Your task to perform on an android device: open app "HBO Max: Stream TV & Movies" Image 0: 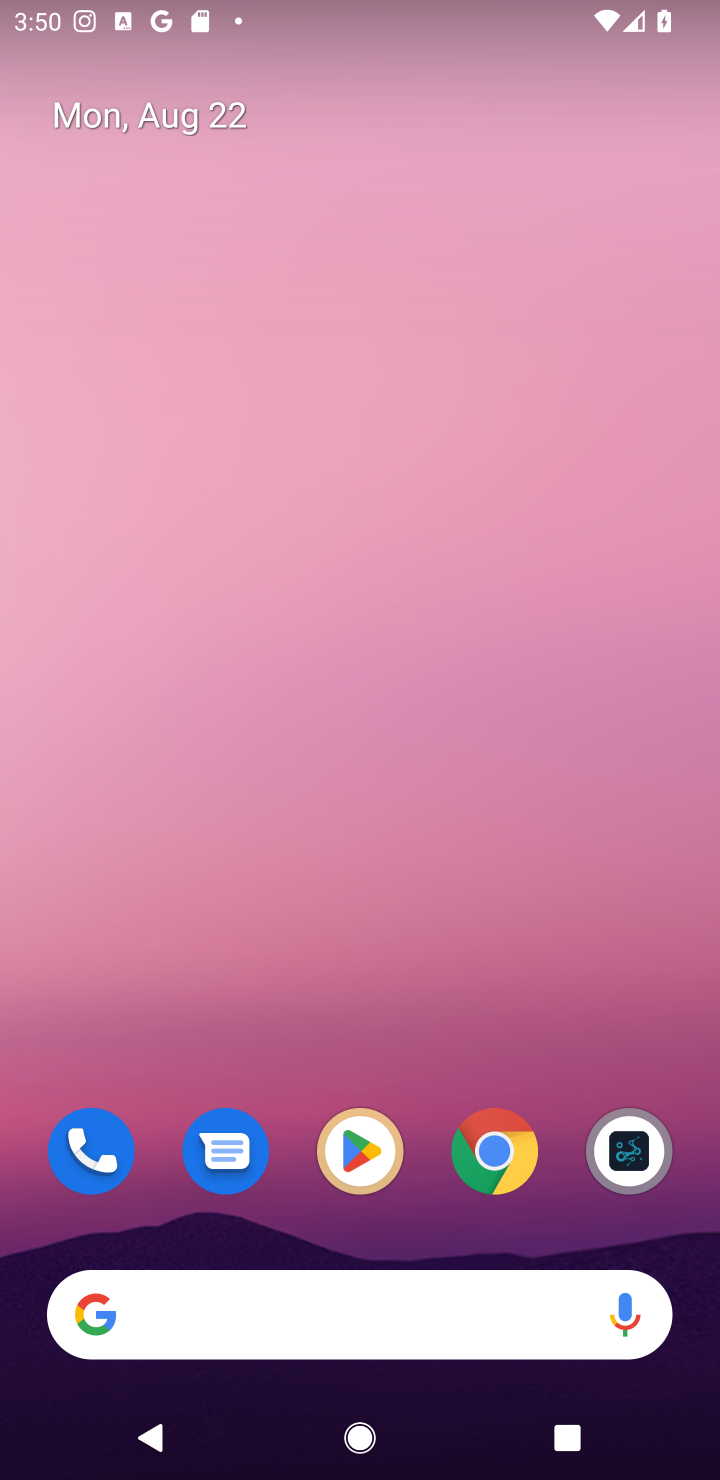
Step 0: press home button
Your task to perform on an android device: open app "HBO Max: Stream TV & Movies" Image 1: 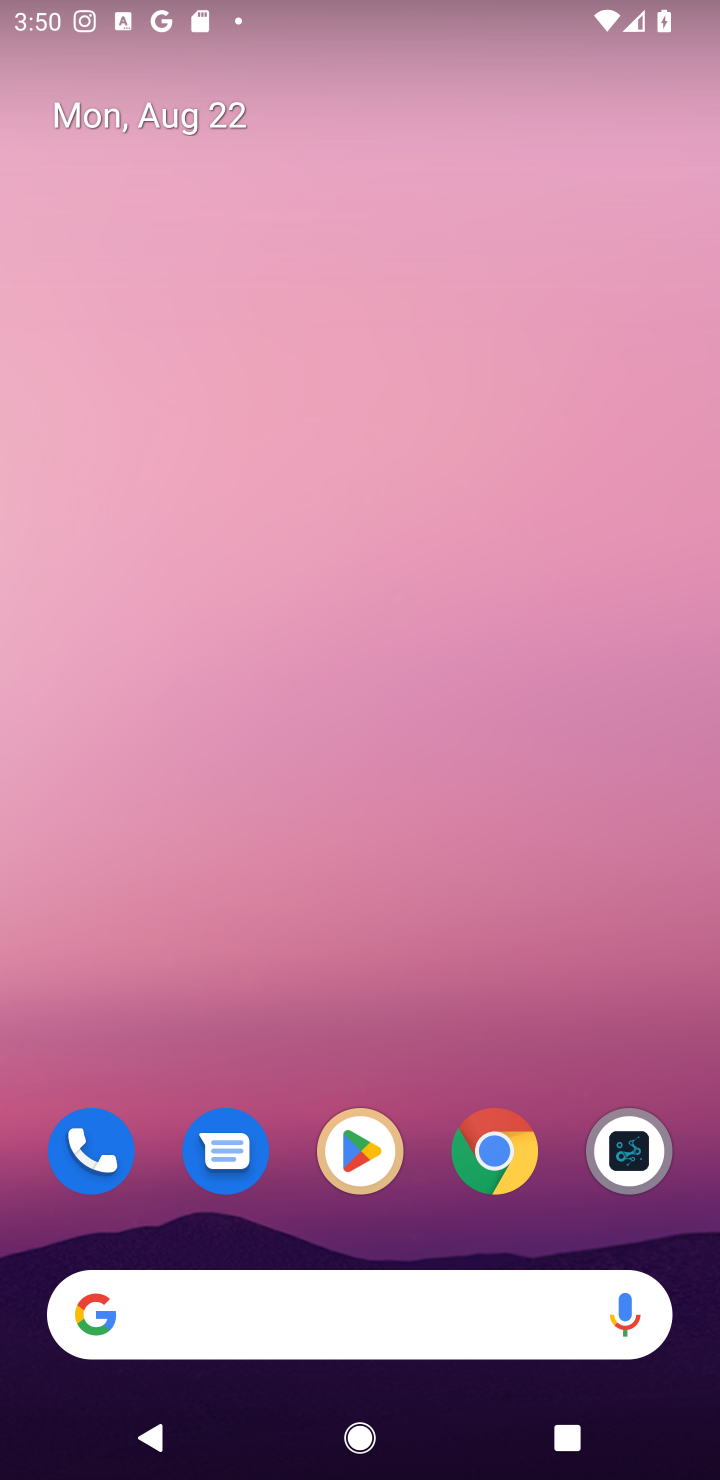
Step 1: click (369, 1157)
Your task to perform on an android device: open app "HBO Max: Stream TV & Movies" Image 2: 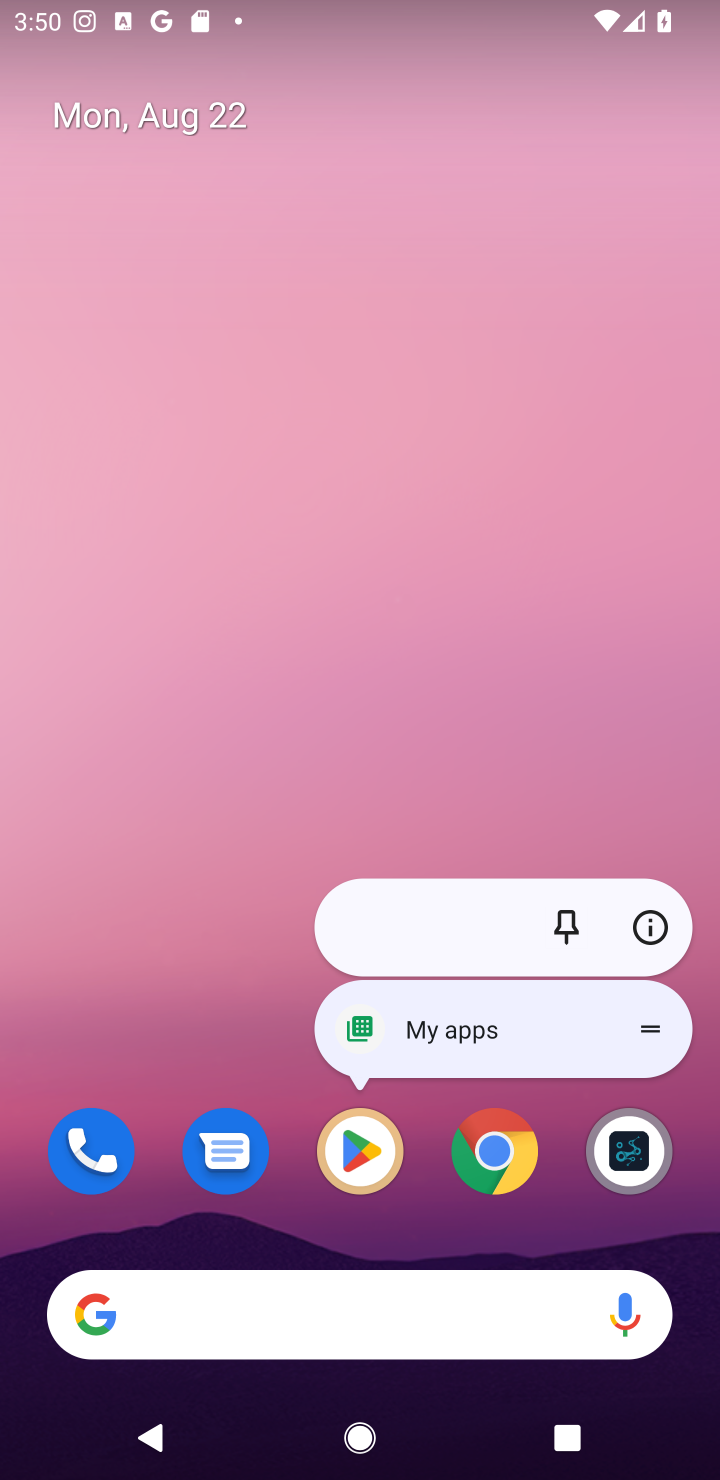
Step 2: click (349, 1145)
Your task to perform on an android device: open app "HBO Max: Stream TV & Movies" Image 3: 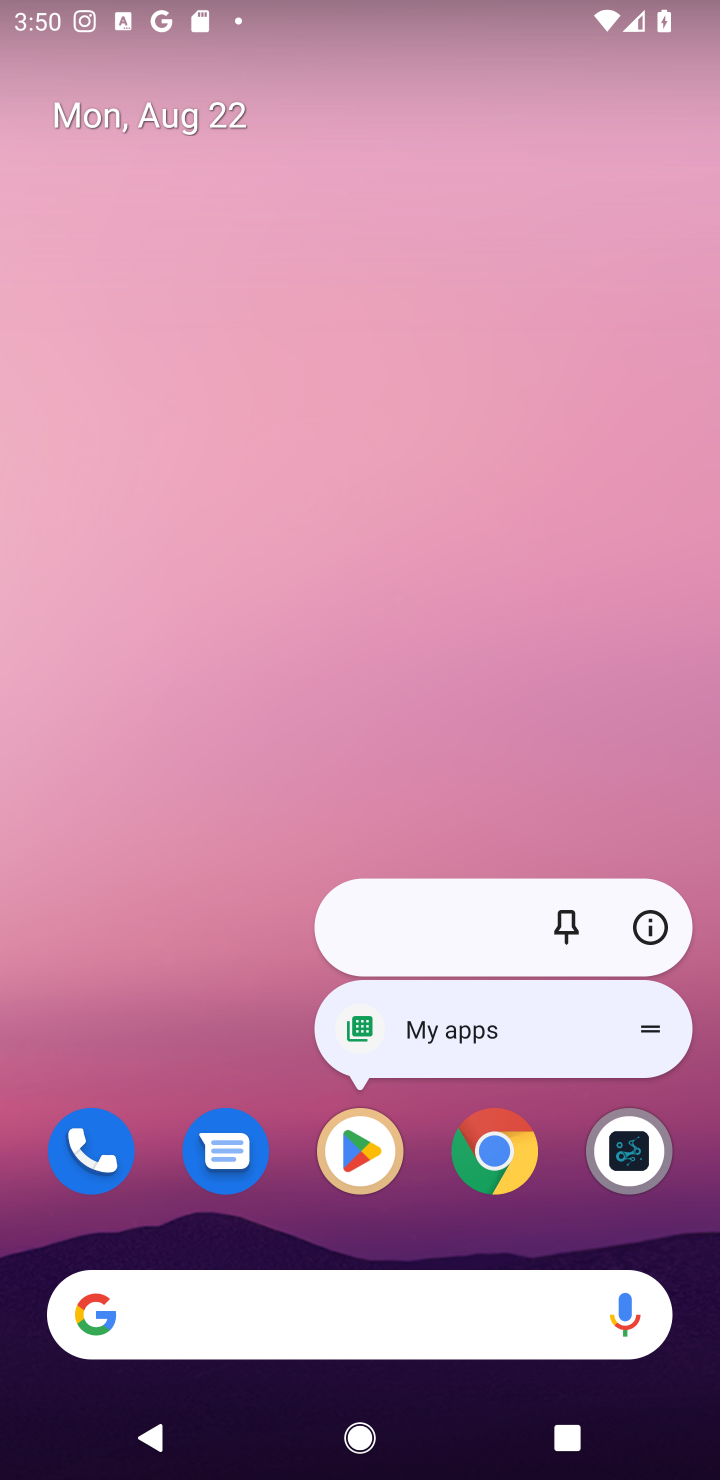
Step 3: click (349, 1145)
Your task to perform on an android device: open app "HBO Max: Stream TV & Movies" Image 4: 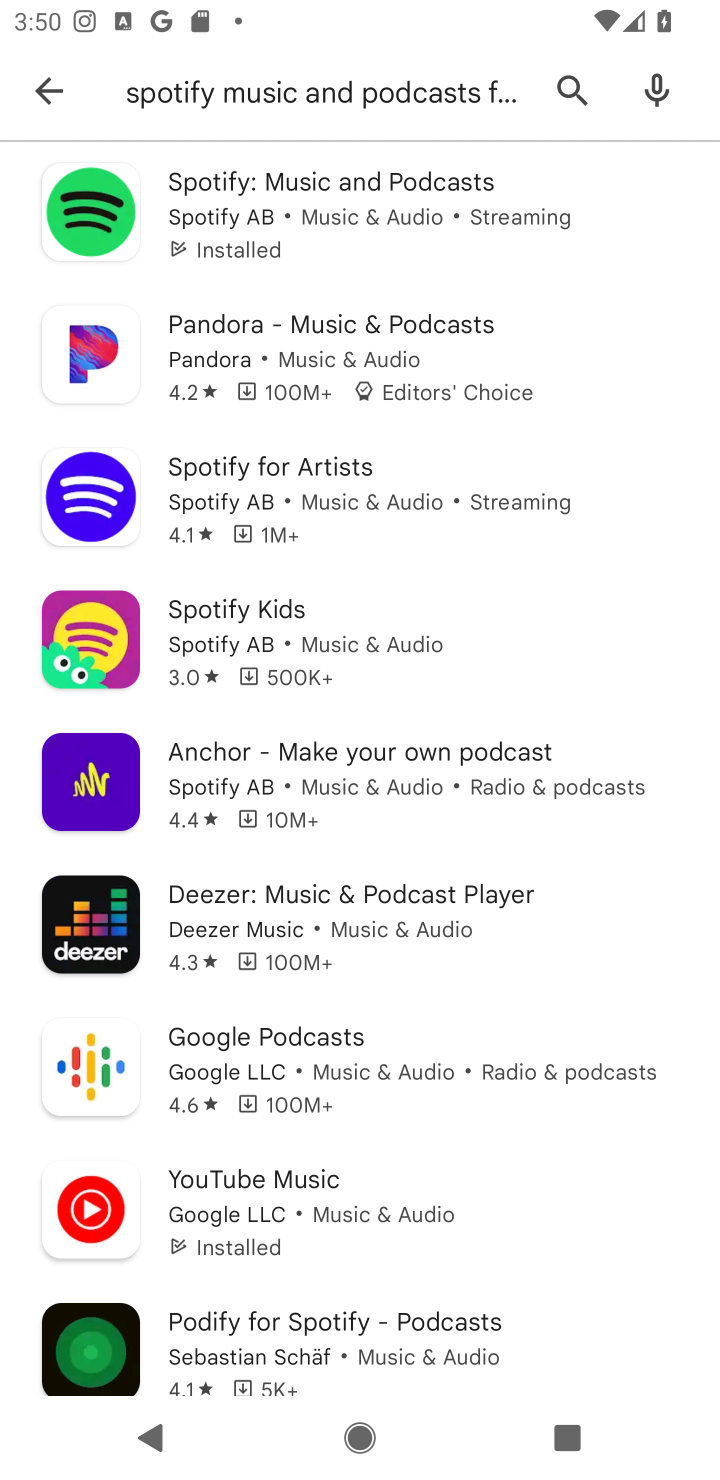
Step 4: click (567, 74)
Your task to perform on an android device: open app "HBO Max: Stream TV & Movies" Image 5: 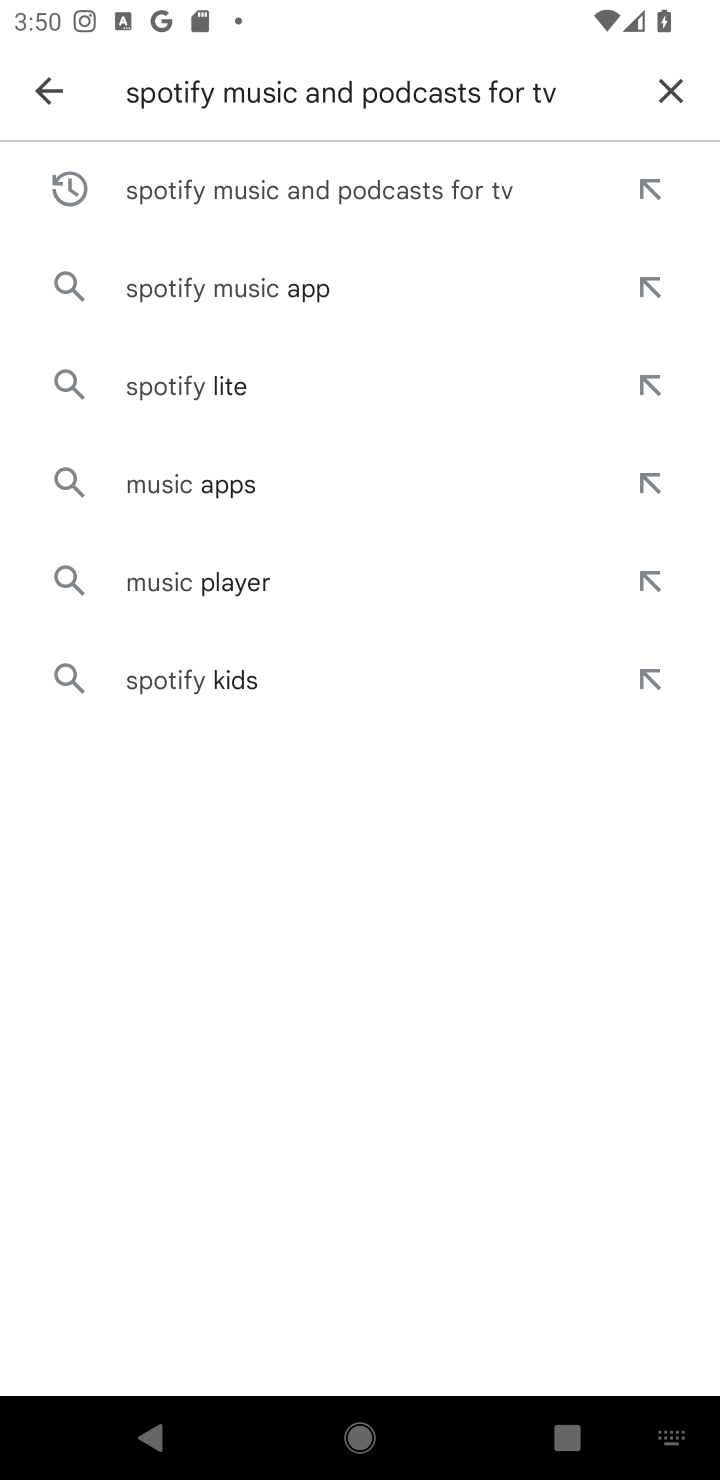
Step 5: click (672, 76)
Your task to perform on an android device: open app "HBO Max: Stream TV & Movies" Image 6: 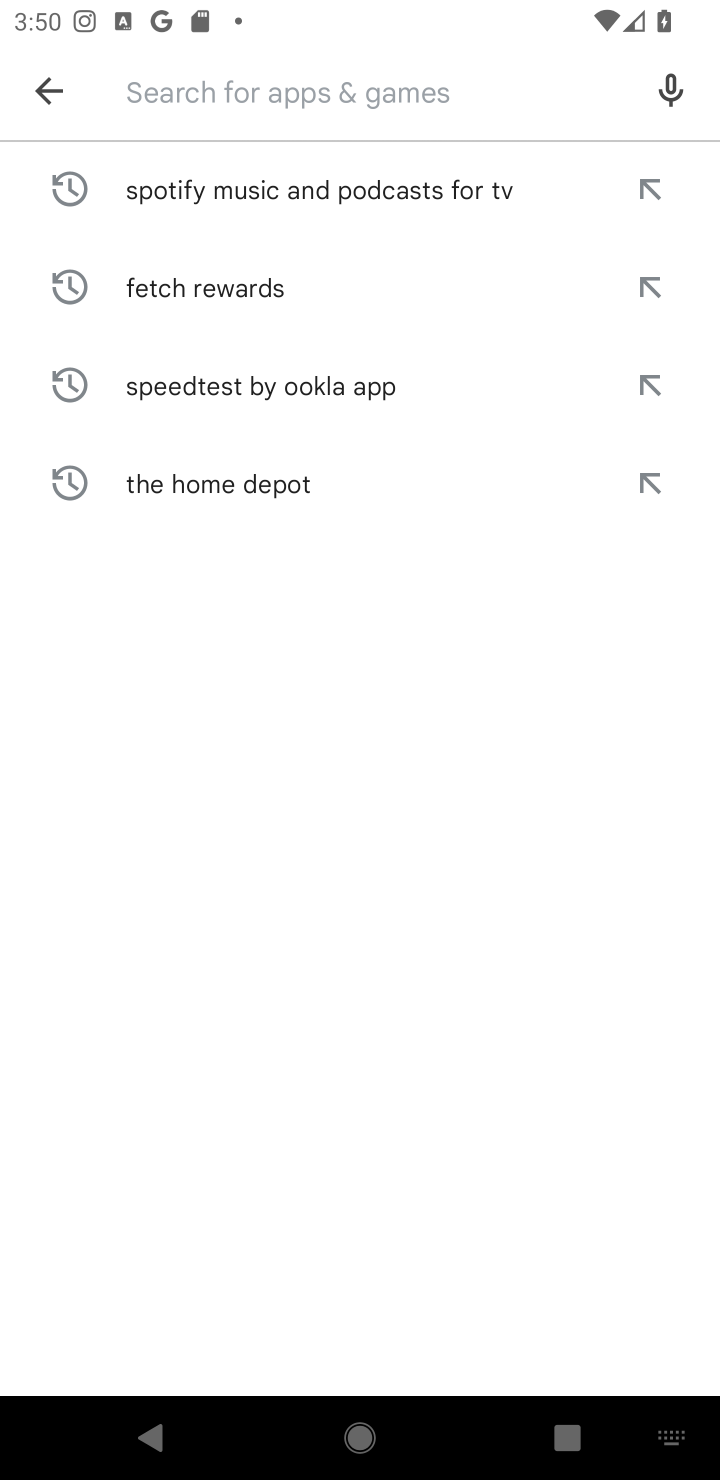
Step 6: type "HBO Max: Stream TV & Movies"
Your task to perform on an android device: open app "HBO Max: Stream TV & Movies" Image 7: 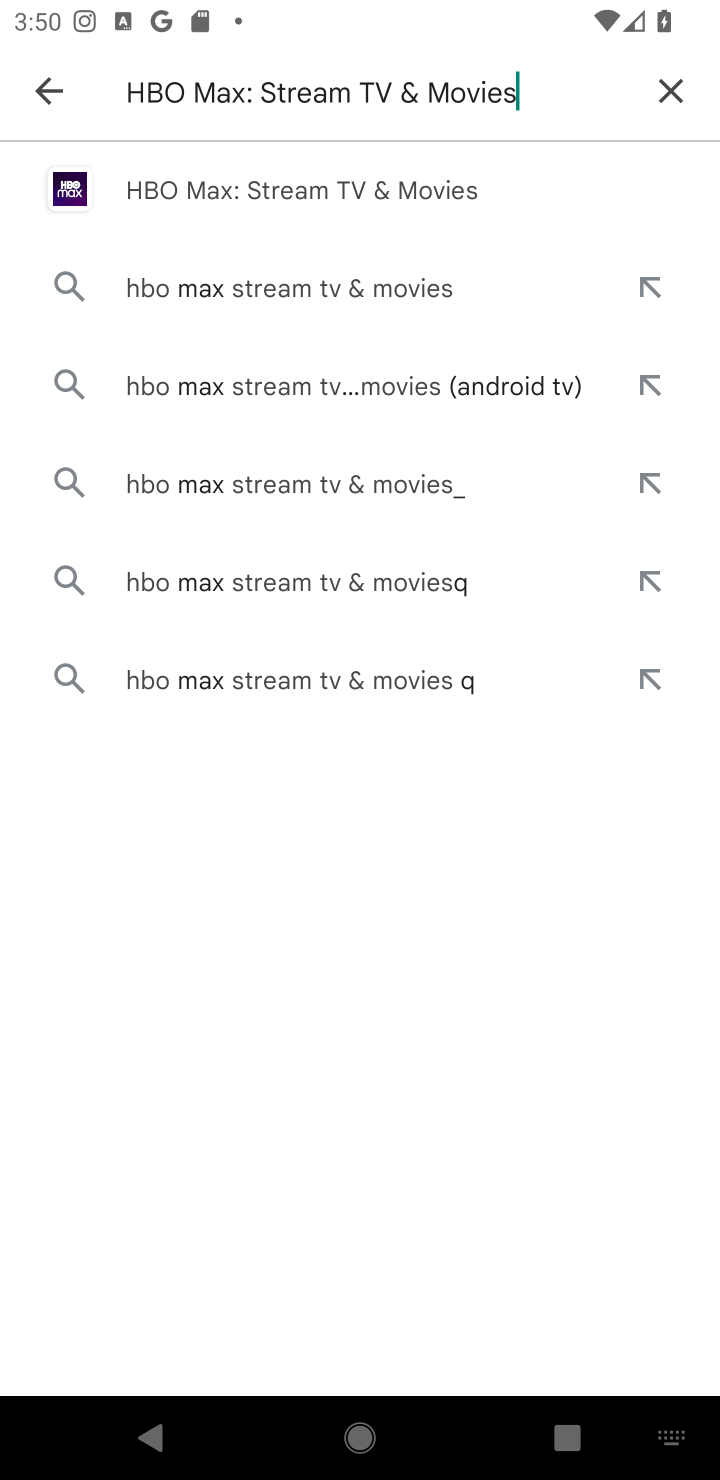
Step 7: click (273, 189)
Your task to perform on an android device: open app "HBO Max: Stream TV & Movies" Image 8: 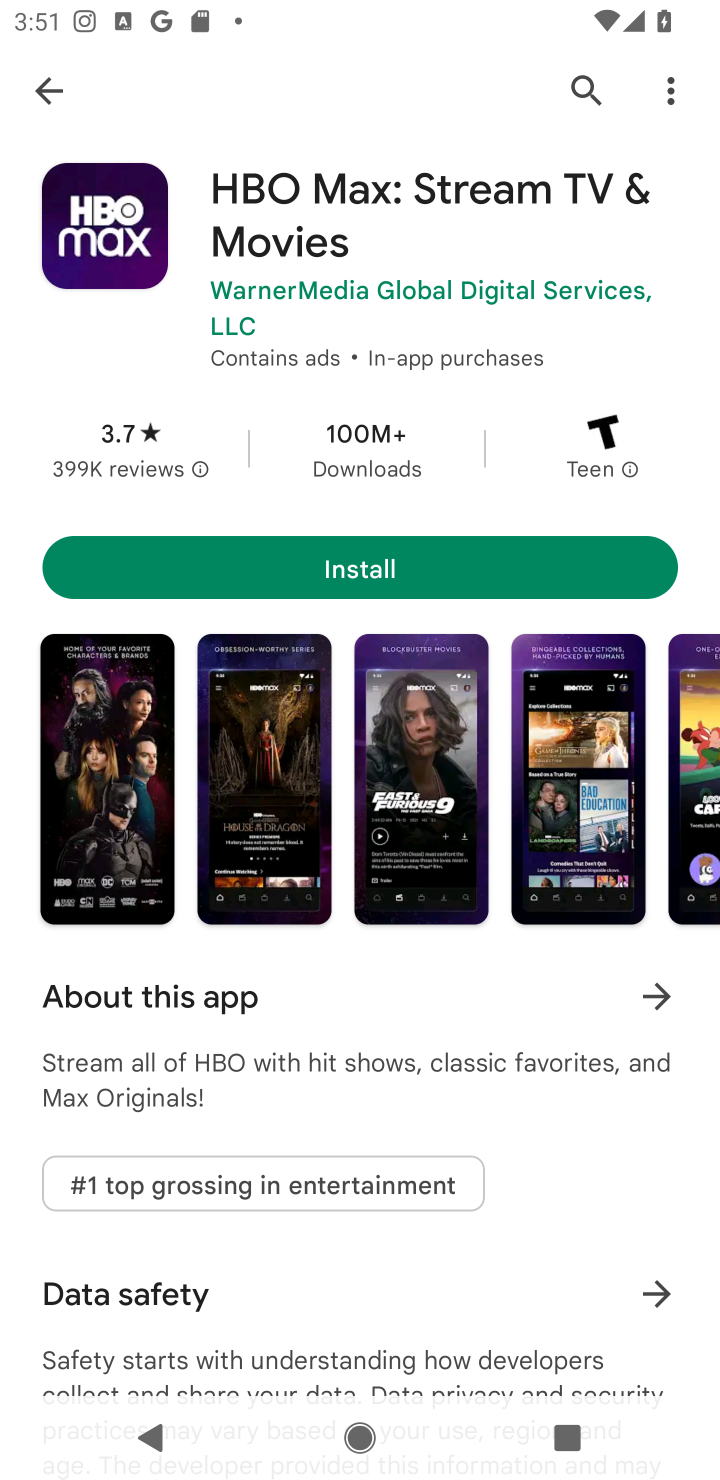
Step 8: task complete